Your task to perform on an android device: Open Youtube and go to "Your channel" Image 0: 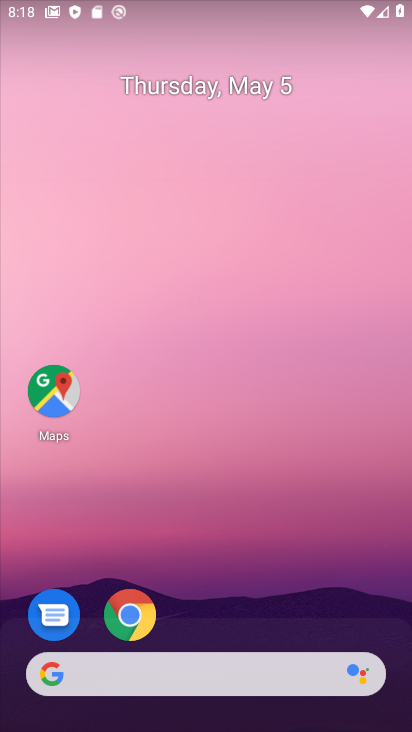
Step 0: drag from (206, 635) to (249, 83)
Your task to perform on an android device: Open Youtube and go to "Your channel" Image 1: 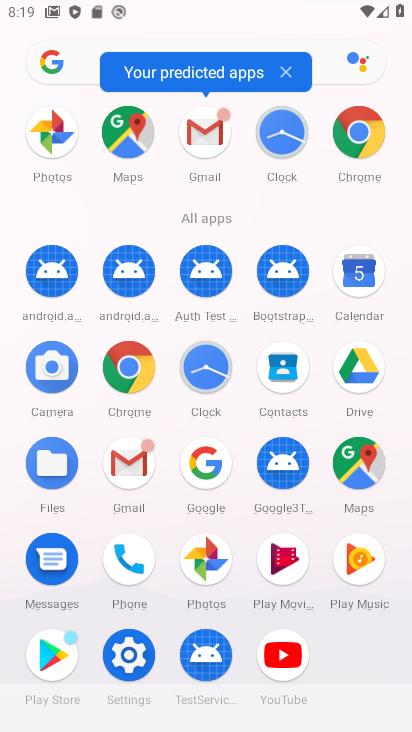
Step 1: click (288, 658)
Your task to perform on an android device: Open Youtube and go to "Your channel" Image 2: 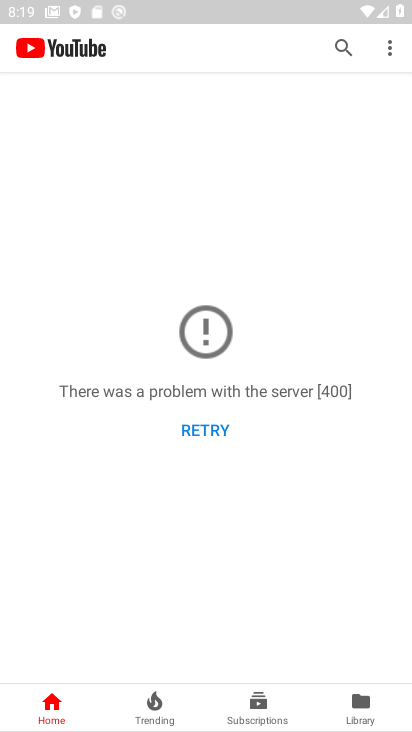
Step 2: click (221, 427)
Your task to perform on an android device: Open Youtube and go to "Your channel" Image 3: 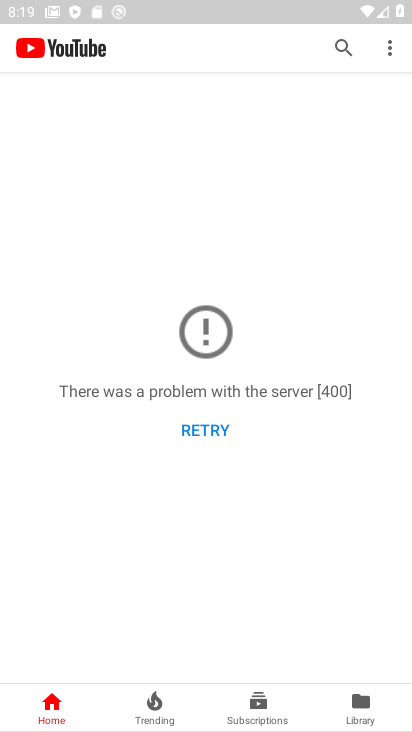
Step 3: click (390, 53)
Your task to perform on an android device: Open Youtube and go to "Your channel" Image 4: 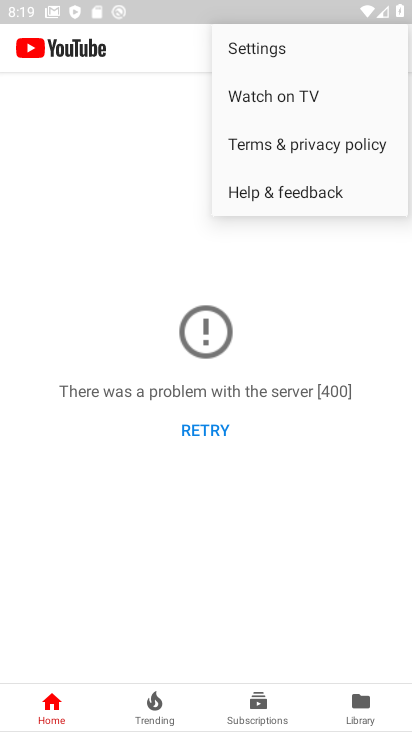
Step 4: click (356, 718)
Your task to perform on an android device: Open Youtube and go to "Your channel" Image 5: 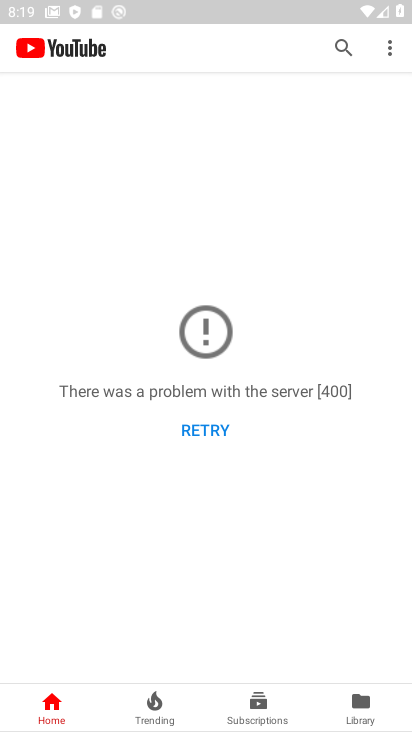
Step 5: click (361, 712)
Your task to perform on an android device: Open Youtube and go to "Your channel" Image 6: 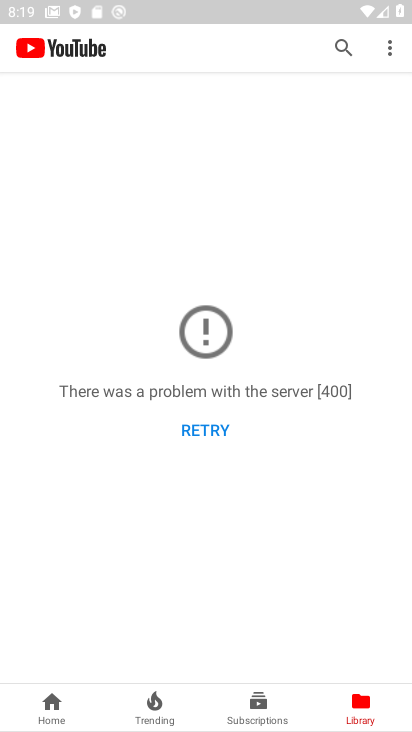
Step 6: click (399, 49)
Your task to perform on an android device: Open Youtube and go to "Your channel" Image 7: 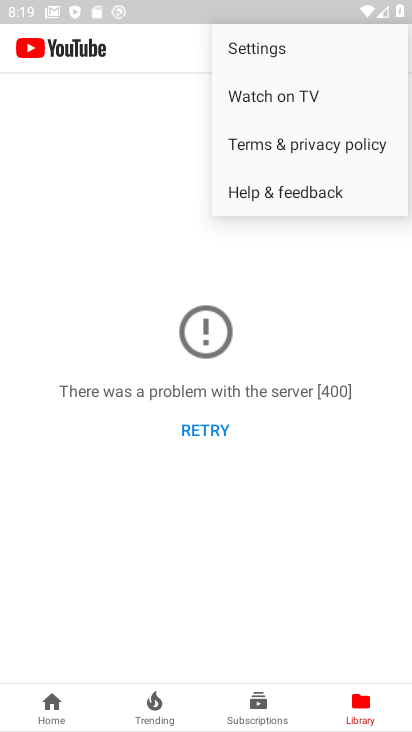
Step 7: click (261, 41)
Your task to perform on an android device: Open Youtube and go to "Your channel" Image 8: 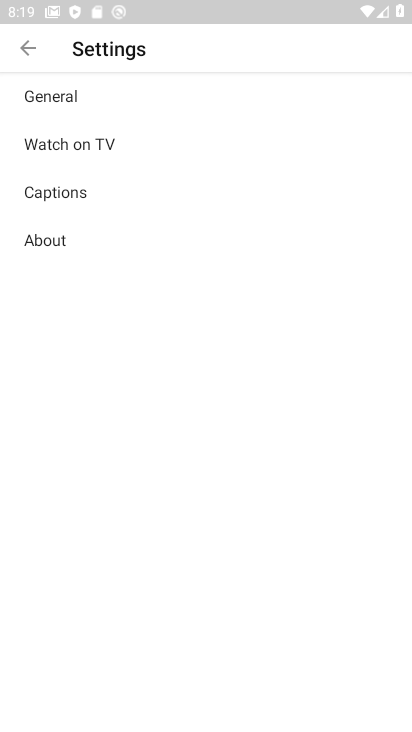
Step 8: task complete